Your task to perform on an android device: Go to Yahoo.com Image 0: 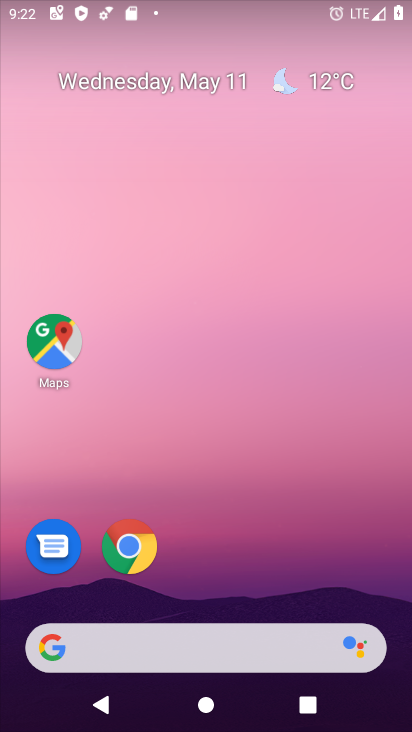
Step 0: click (124, 554)
Your task to perform on an android device: Go to Yahoo.com Image 1: 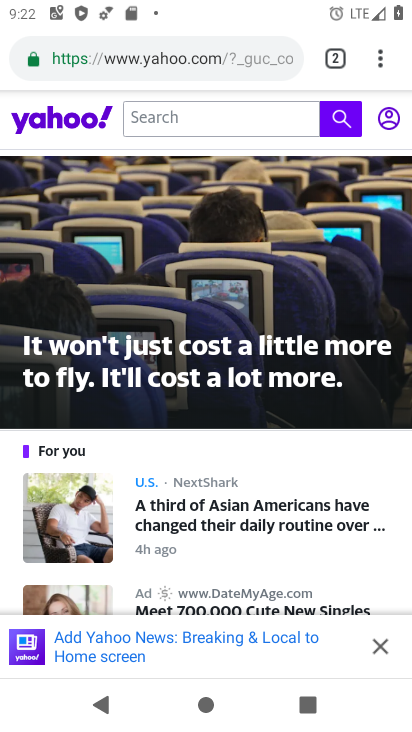
Step 1: task complete